Your task to perform on an android device: Open Google Chrome and open the bookmarks view Image 0: 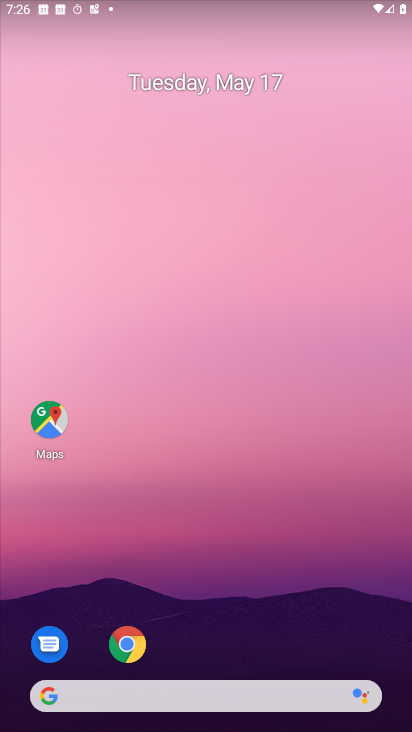
Step 0: drag from (319, 621) to (271, 8)
Your task to perform on an android device: Open Google Chrome and open the bookmarks view Image 1: 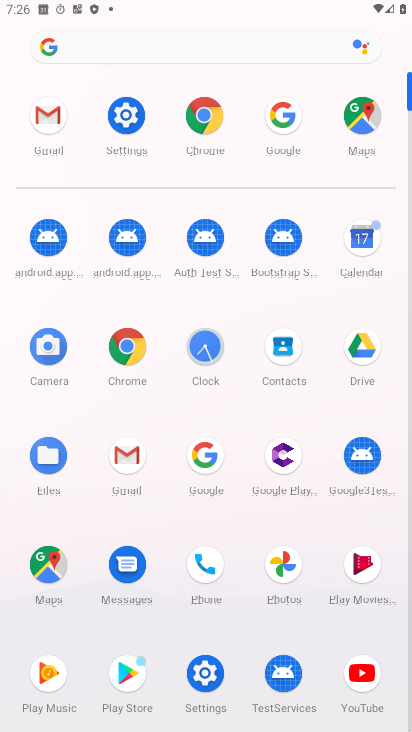
Step 1: click (198, 119)
Your task to perform on an android device: Open Google Chrome and open the bookmarks view Image 2: 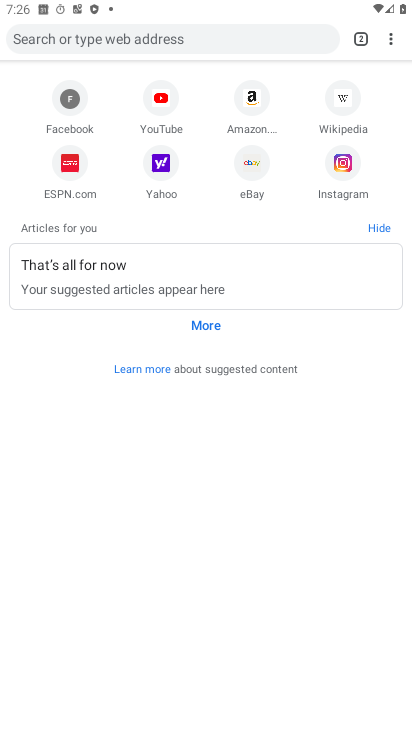
Step 2: click (391, 35)
Your task to perform on an android device: Open Google Chrome and open the bookmarks view Image 3: 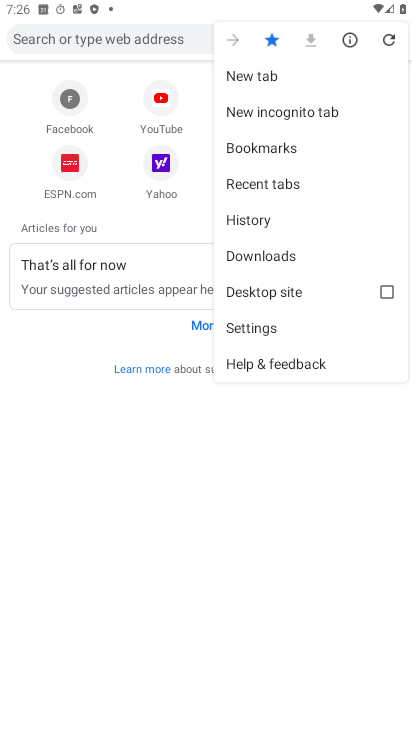
Step 3: click (297, 147)
Your task to perform on an android device: Open Google Chrome and open the bookmarks view Image 4: 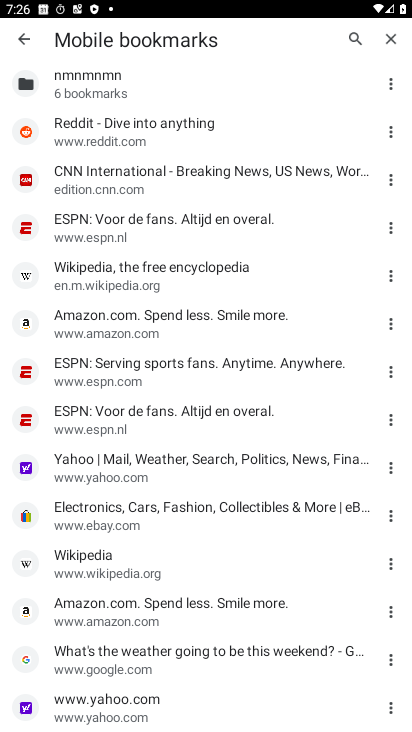
Step 4: task complete